Your task to perform on an android device: turn off picture-in-picture Image 0: 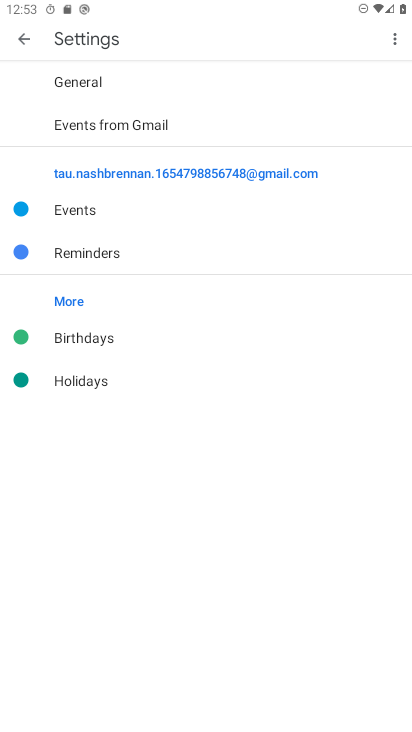
Step 0: press home button
Your task to perform on an android device: turn off picture-in-picture Image 1: 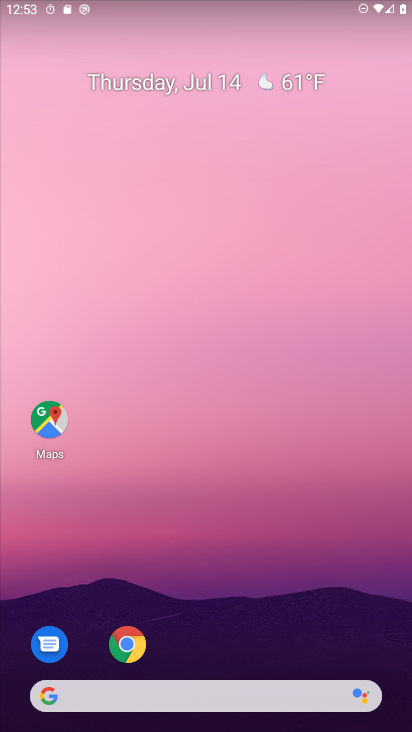
Step 1: click (128, 639)
Your task to perform on an android device: turn off picture-in-picture Image 2: 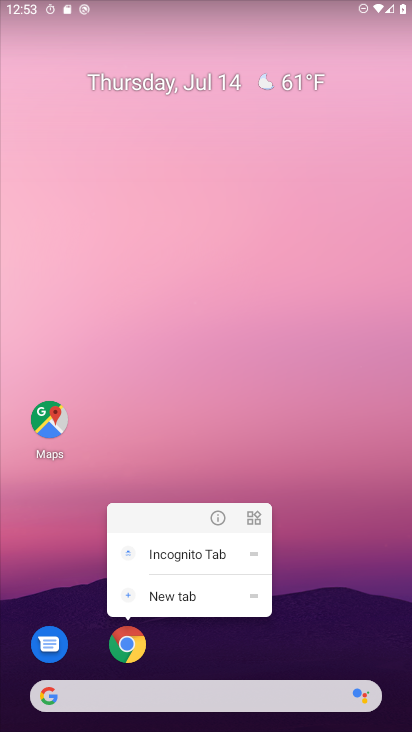
Step 2: click (215, 520)
Your task to perform on an android device: turn off picture-in-picture Image 3: 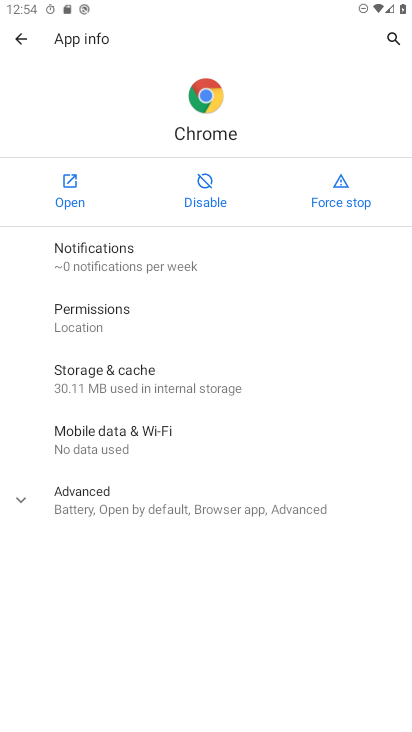
Step 3: click (148, 508)
Your task to perform on an android device: turn off picture-in-picture Image 4: 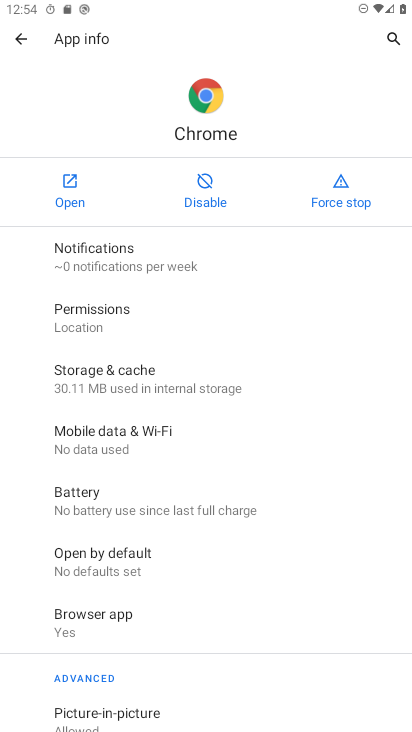
Step 4: drag from (214, 672) to (215, 200)
Your task to perform on an android device: turn off picture-in-picture Image 5: 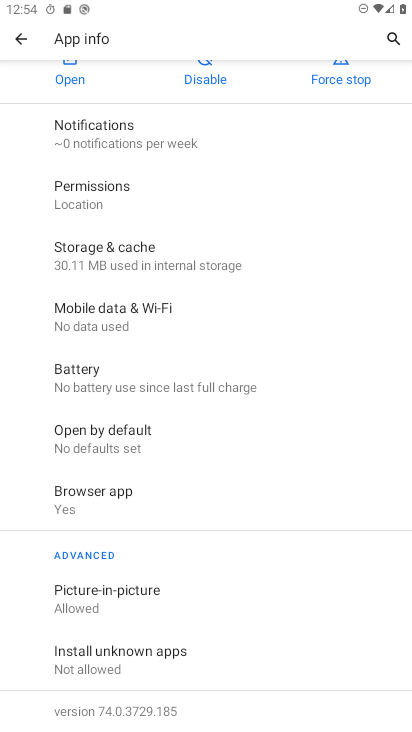
Step 5: click (166, 595)
Your task to perform on an android device: turn off picture-in-picture Image 6: 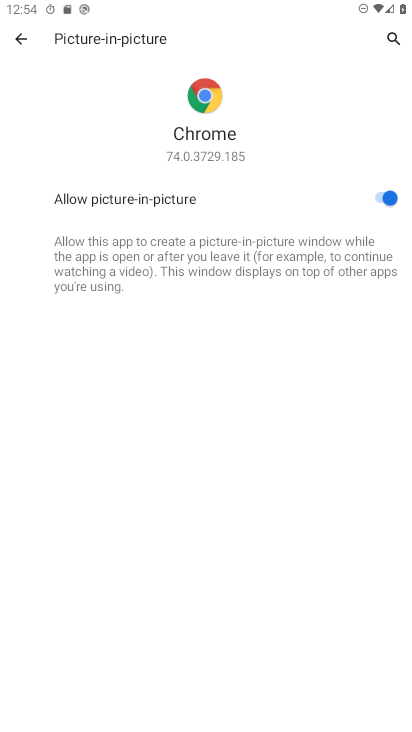
Step 6: click (375, 190)
Your task to perform on an android device: turn off picture-in-picture Image 7: 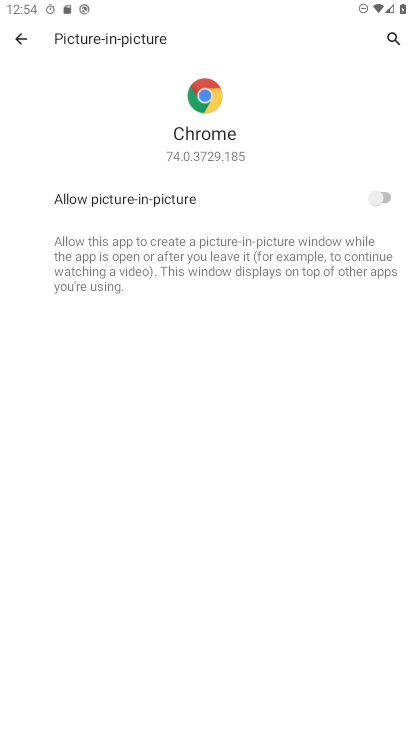
Step 7: task complete